Your task to perform on an android device: Open Android settings Image 0: 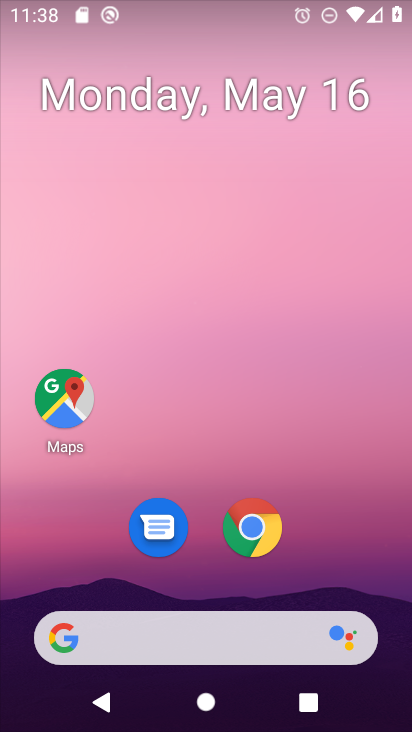
Step 0: drag from (347, 575) to (354, 3)
Your task to perform on an android device: Open Android settings Image 1: 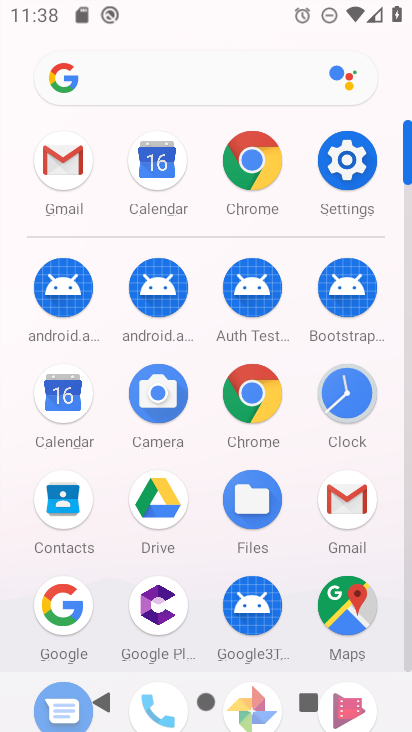
Step 1: click (348, 157)
Your task to perform on an android device: Open Android settings Image 2: 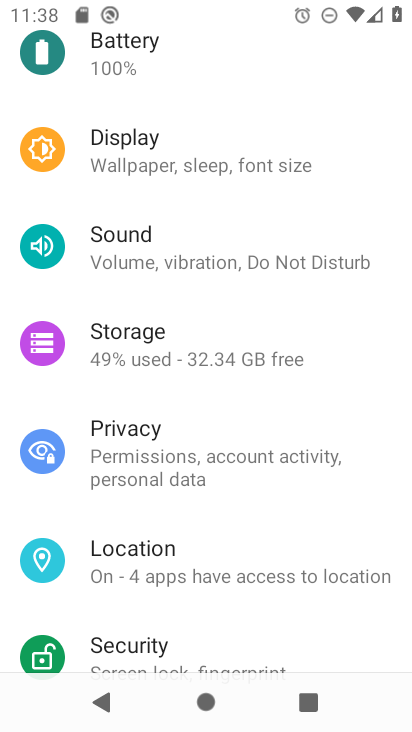
Step 2: task complete